Your task to perform on an android device: turn on javascript in the chrome app Image 0: 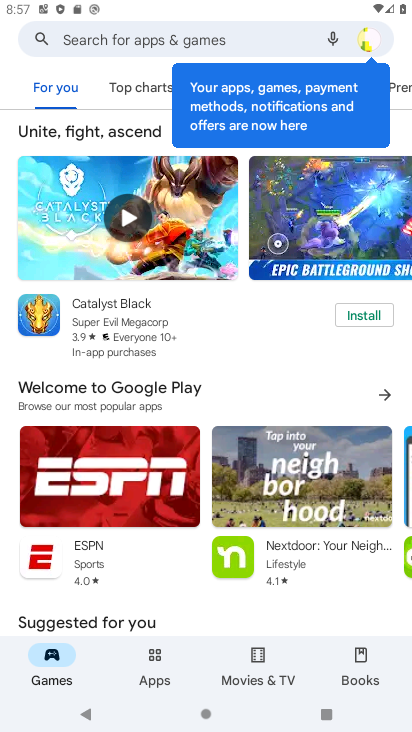
Step 0: press home button
Your task to perform on an android device: turn on javascript in the chrome app Image 1: 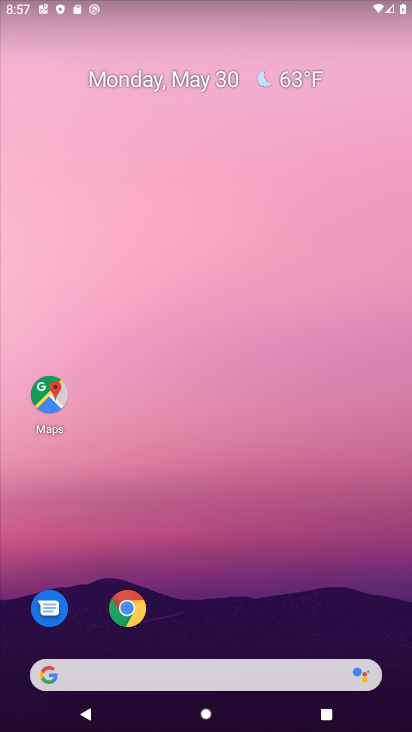
Step 1: click (132, 610)
Your task to perform on an android device: turn on javascript in the chrome app Image 2: 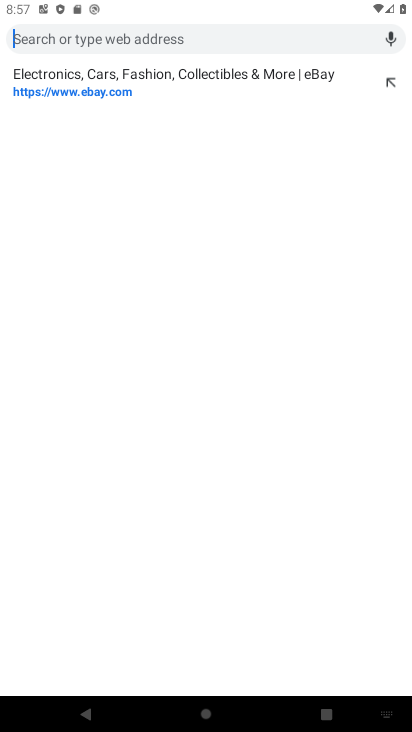
Step 2: drag from (241, 116) to (285, 452)
Your task to perform on an android device: turn on javascript in the chrome app Image 3: 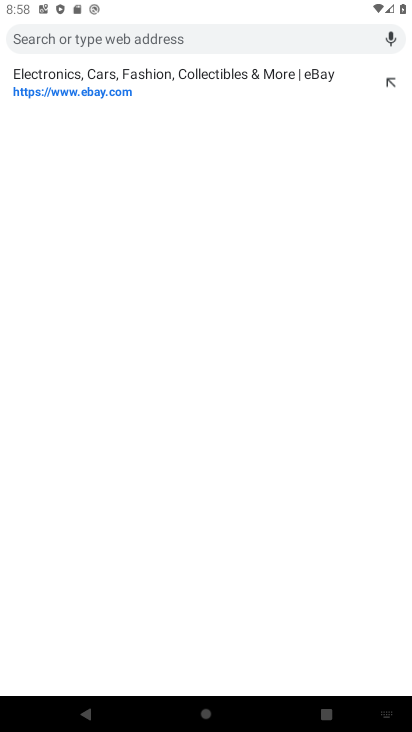
Step 3: press back button
Your task to perform on an android device: turn on javascript in the chrome app Image 4: 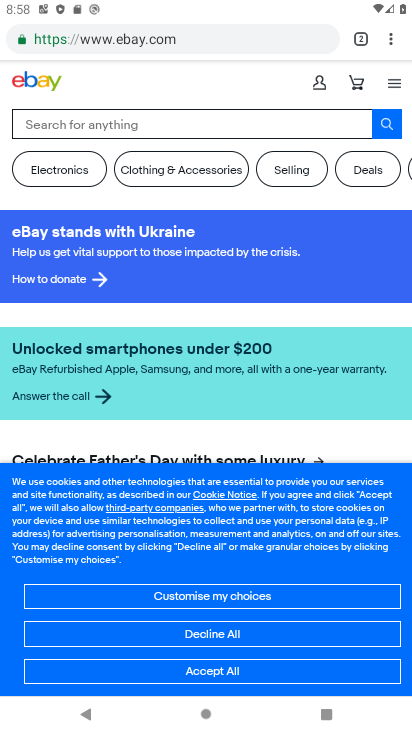
Step 4: click (391, 40)
Your task to perform on an android device: turn on javascript in the chrome app Image 5: 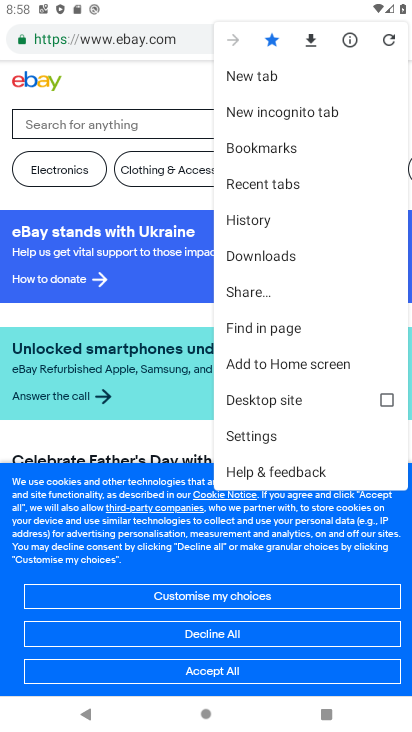
Step 5: click (265, 435)
Your task to perform on an android device: turn on javascript in the chrome app Image 6: 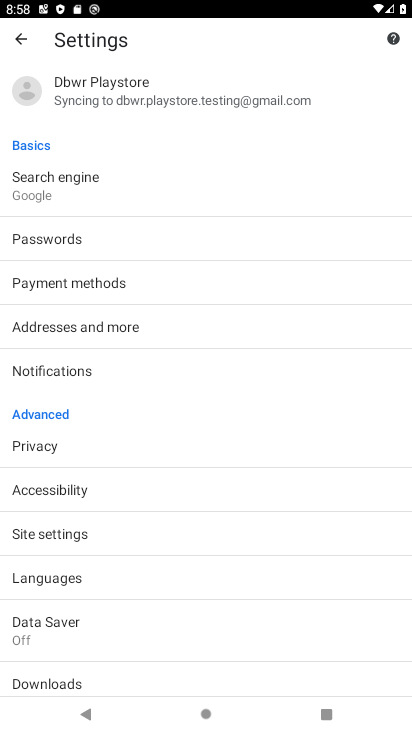
Step 6: click (45, 530)
Your task to perform on an android device: turn on javascript in the chrome app Image 7: 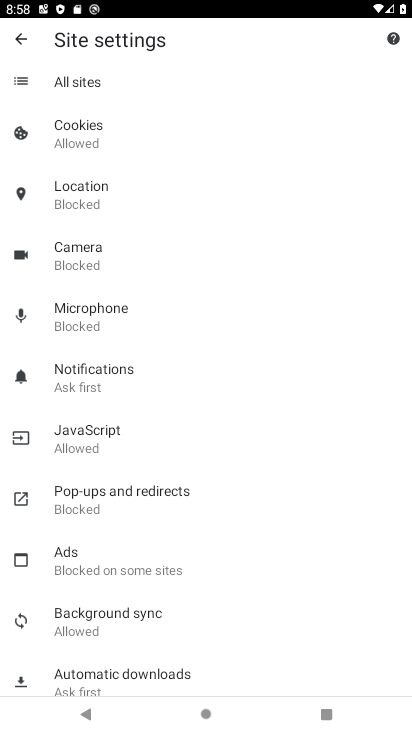
Step 7: click (93, 432)
Your task to perform on an android device: turn on javascript in the chrome app Image 8: 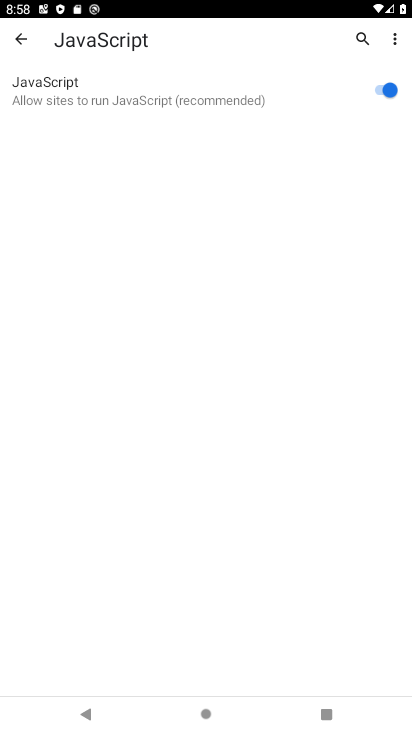
Step 8: task complete